Your task to perform on an android device: Open notification settings Image 0: 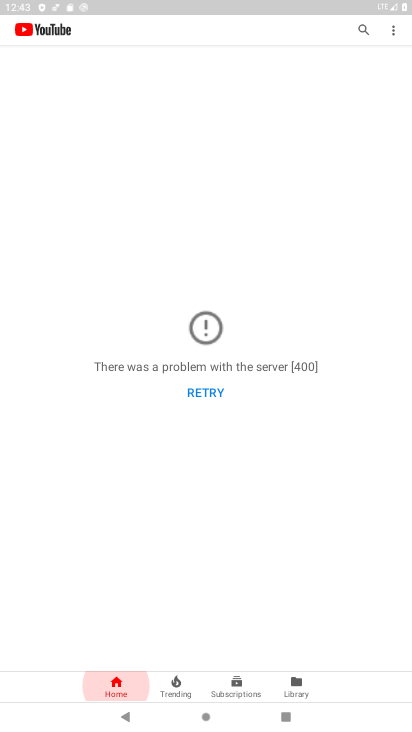
Step 0: press home button
Your task to perform on an android device: Open notification settings Image 1: 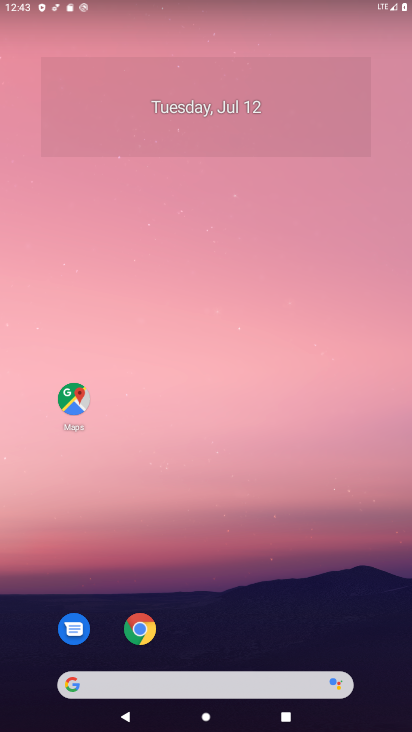
Step 1: drag from (199, 236) to (227, 47)
Your task to perform on an android device: Open notification settings Image 2: 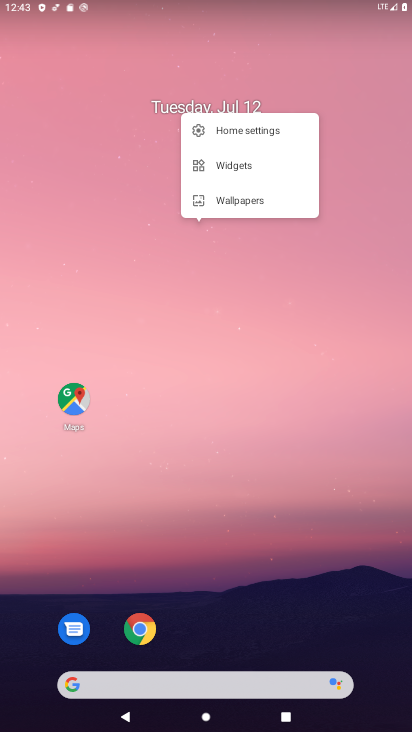
Step 2: drag from (198, 331) to (252, 143)
Your task to perform on an android device: Open notification settings Image 3: 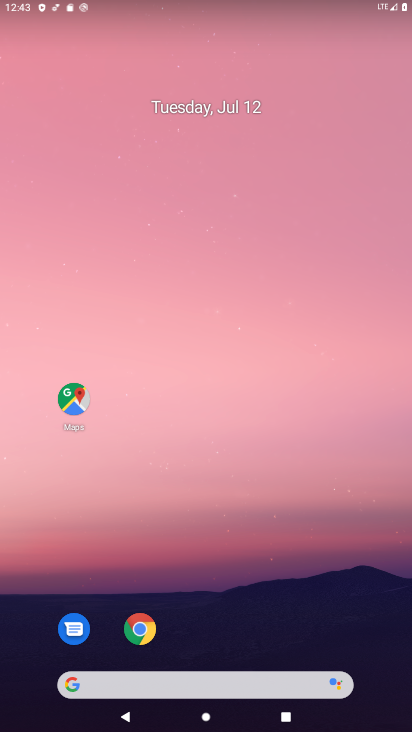
Step 3: click (194, 139)
Your task to perform on an android device: Open notification settings Image 4: 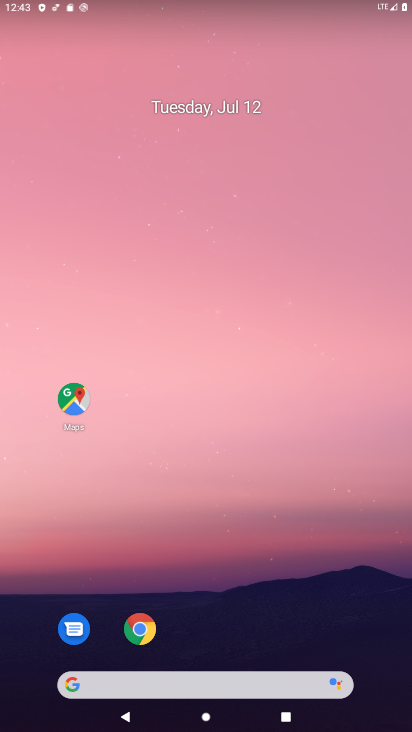
Step 4: drag from (302, 53) to (310, 6)
Your task to perform on an android device: Open notification settings Image 5: 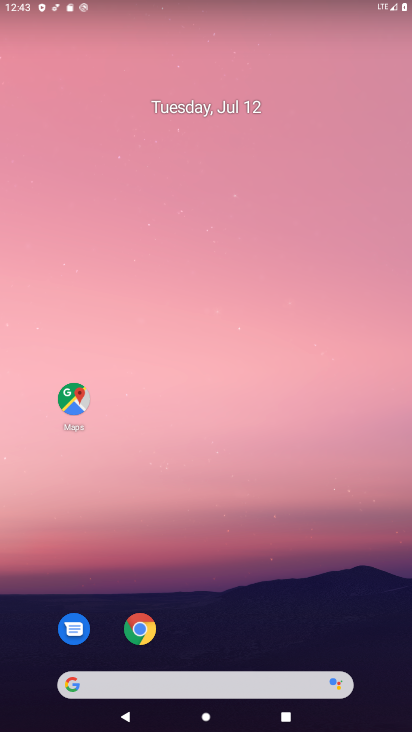
Step 5: click (250, 293)
Your task to perform on an android device: Open notification settings Image 6: 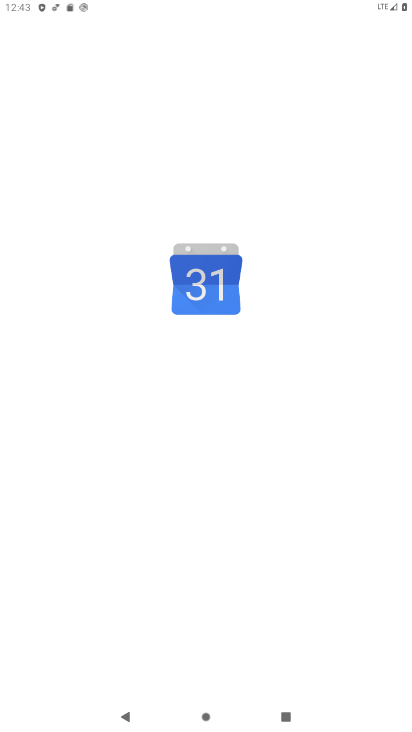
Step 6: task complete